Your task to perform on an android device: Go to display settings Image 0: 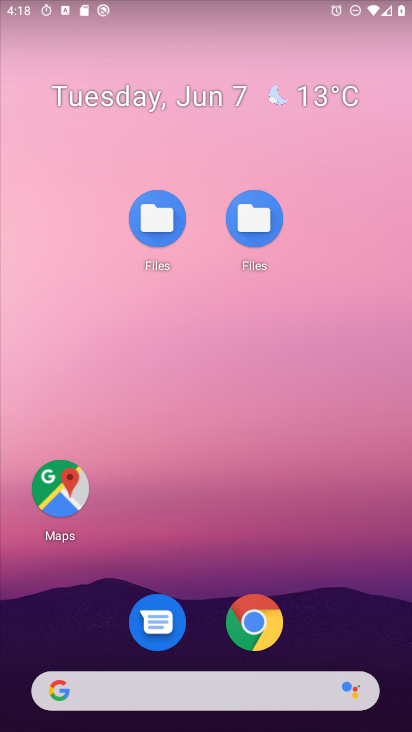
Step 0: drag from (309, 600) to (310, 35)
Your task to perform on an android device: Go to display settings Image 1: 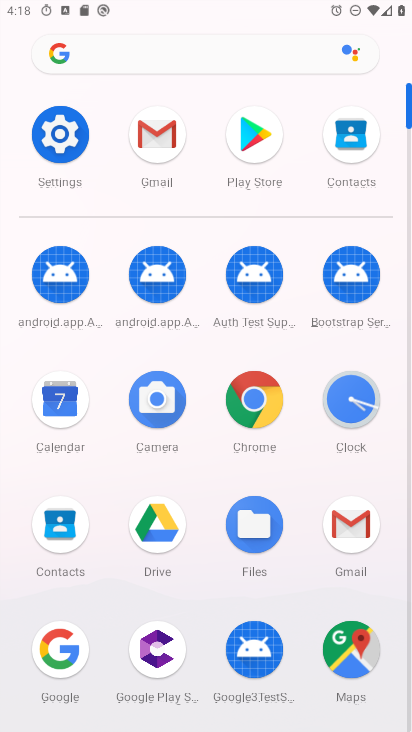
Step 1: click (68, 135)
Your task to perform on an android device: Go to display settings Image 2: 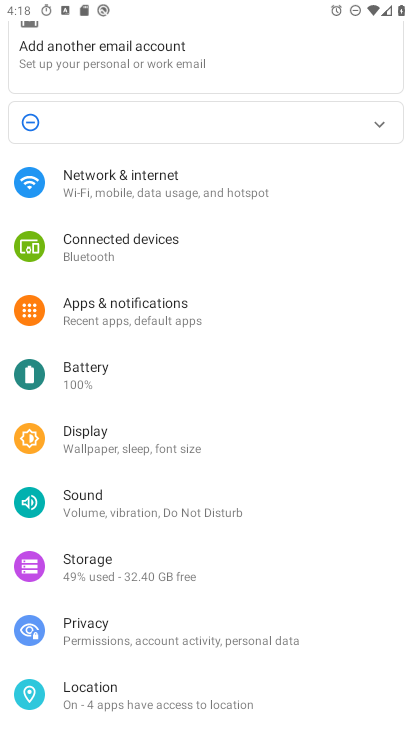
Step 2: click (176, 448)
Your task to perform on an android device: Go to display settings Image 3: 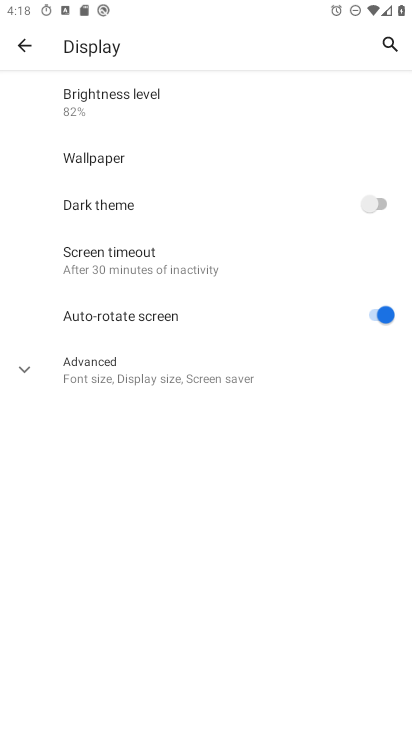
Step 3: task complete